Your task to perform on an android device: Go to battery settings Image 0: 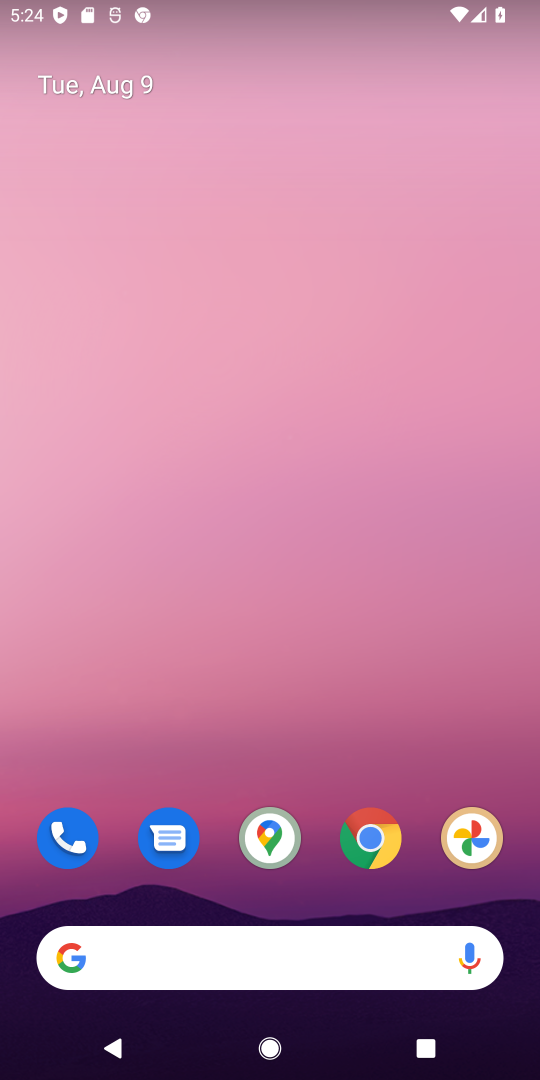
Step 0: drag from (305, 773) to (309, 42)
Your task to perform on an android device: Go to battery settings Image 1: 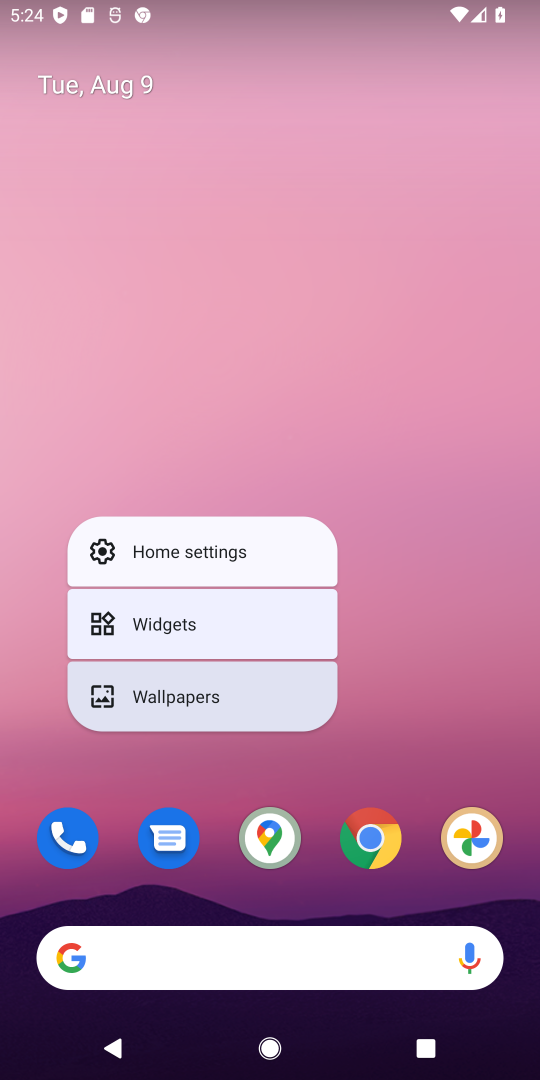
Step 1: drag from (423, 791) to (347, 197)
Your task to perform on an android device: Go to battery settings Image 2: 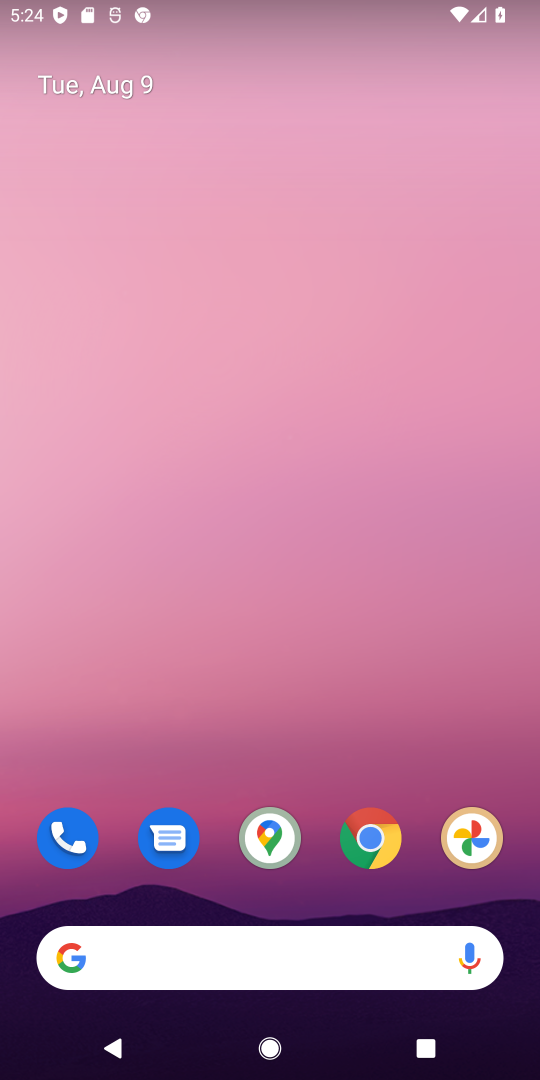
Step 2: drag from (522, 955) to (367, 17)
Your task to perform on an android device: Go to battery settings Image 3: 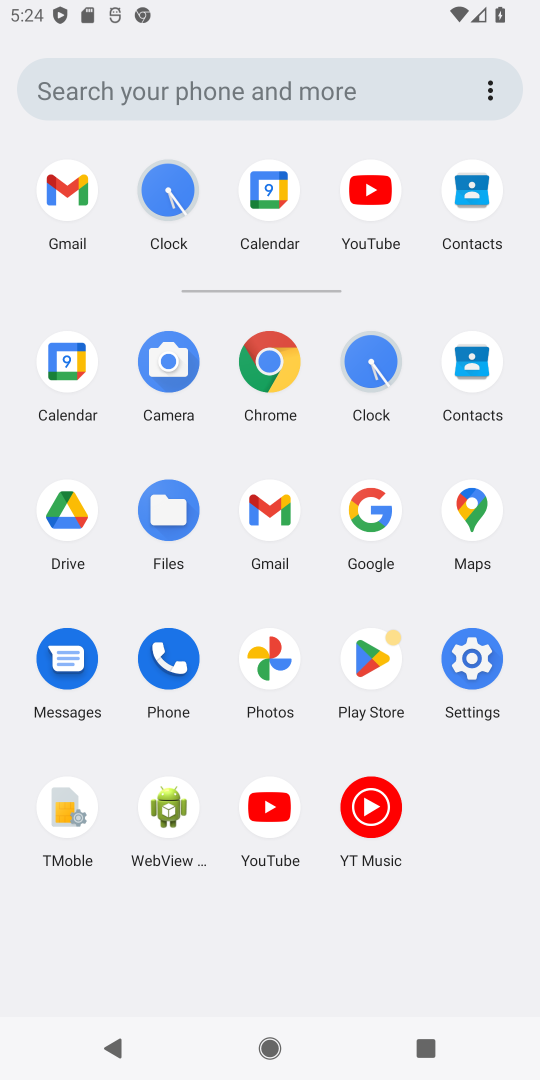
Step 3: click (485, 664)
Your task to perform on an android device: Go to battery settings Image 4: 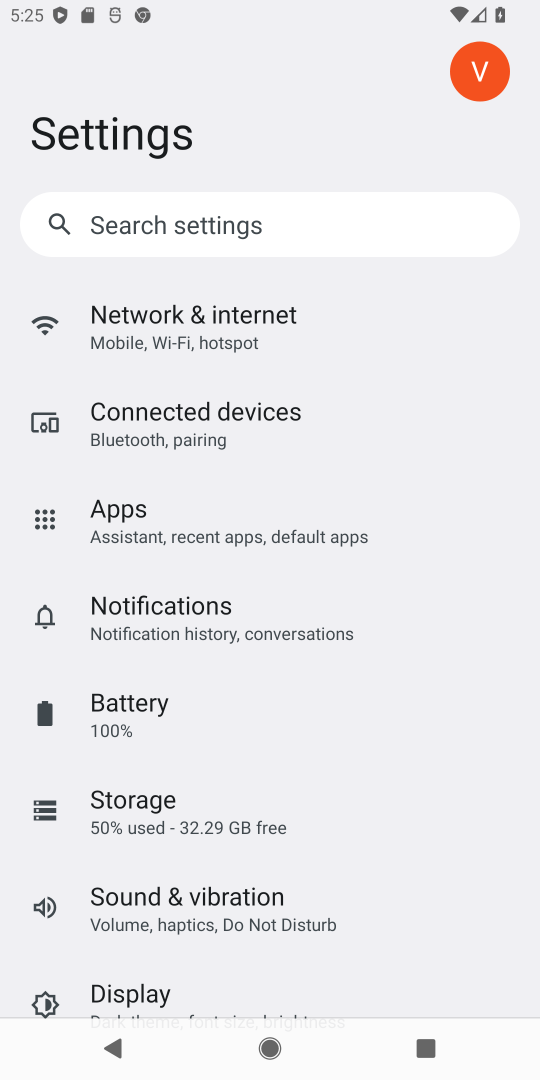
Step 4: click (152, 729)
Your task to perform on an android device: Go to battery settings Image 5: 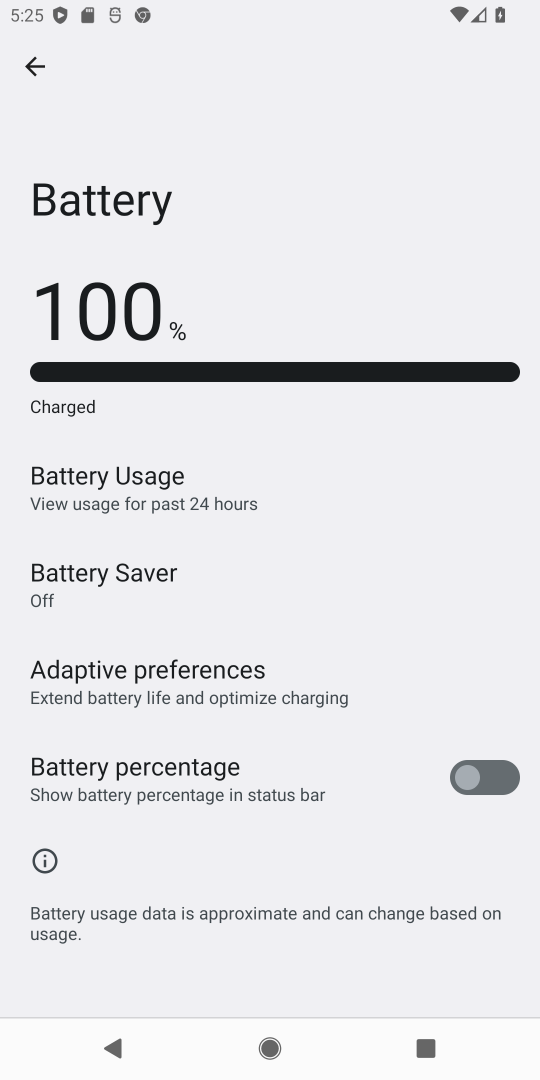
Step 5: task complete